Your task to perform on an android device: set default search engine in the chrome app Image 0: 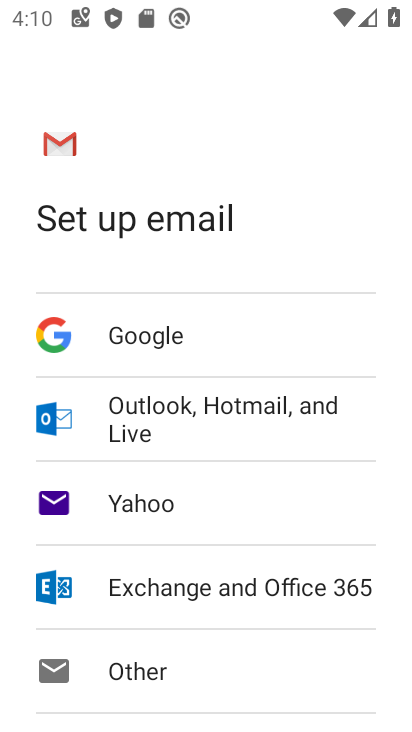
Step 0: press back button
Your task to perform on an android device: set default search engine in the chrome app Image 1: 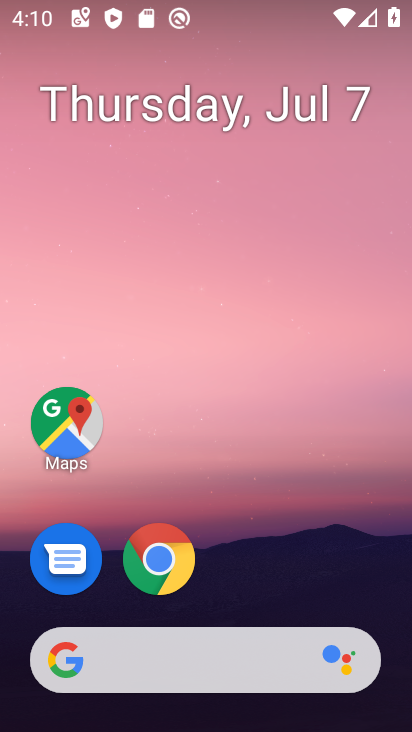
Step 1: click (172, 588)
Your task to perform on an android device: set default search engine in the chrome app Image 2: 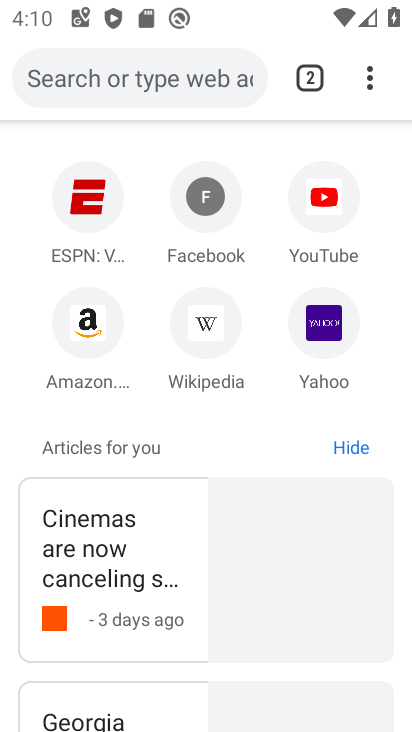
Step 2: drag from (367, 71) to (109, 612)
Your task to perform on an android device: set default search engine in the chrome app Image 3: 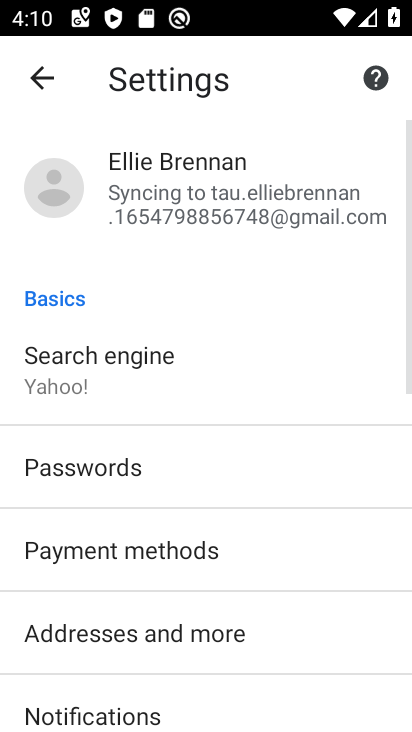
Step 3: click (93, 352)
Your task to perform on an android device: set default search engine in the chrome app Image 4: 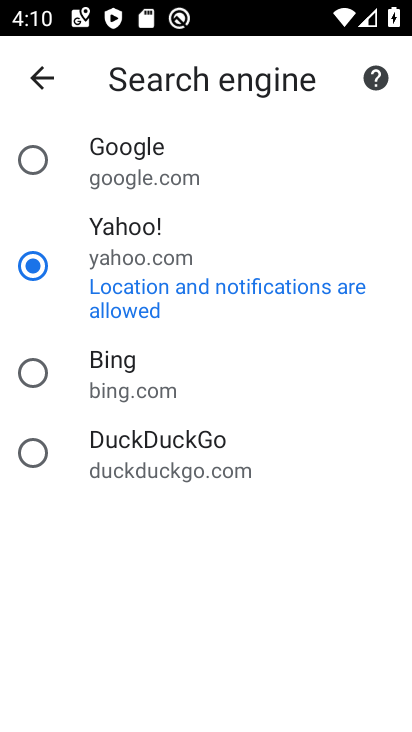
Step 4: click (37, 152)
Your task to perform on an android device: set default search engine in the chrome app Image 5: 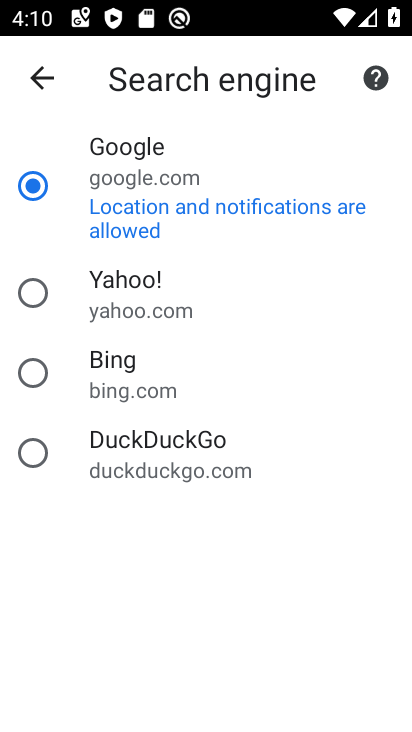
Step 5: task complete